Your task to perform on an android device: Check the weather Image 0: 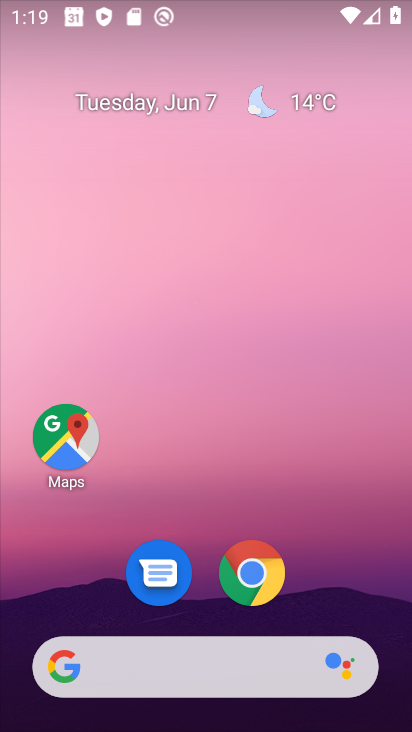
Step 0: click (67, 432)
Your task to perform on an android device: Check the weather Image 1: 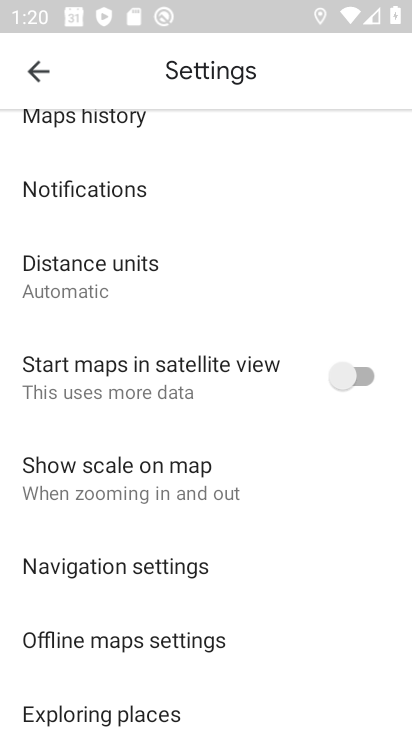
Step 1: press home button
Your task to perform on an android device: Check the weather Image 2: 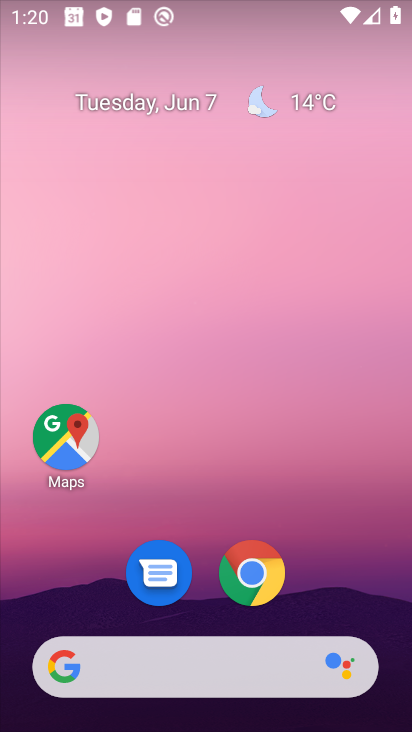
Step 2: click (296, 96)
Your task to perform on an android device: Check the weather Image 3: 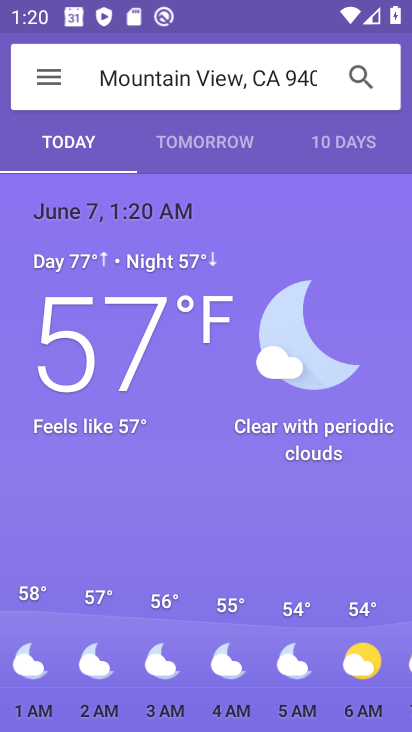
Step 3: task complete